Your task to perform on an android device: turn on translation in the chrome app Image 0: 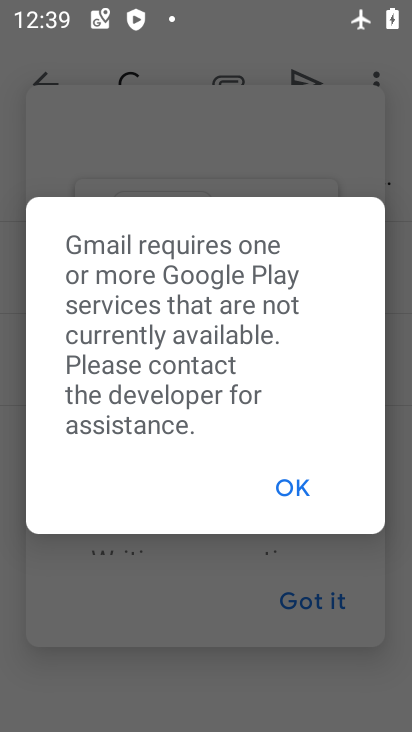
Step 0: press home button
Your task to perform on an android device: turn on translation in the chrome app Image 1: 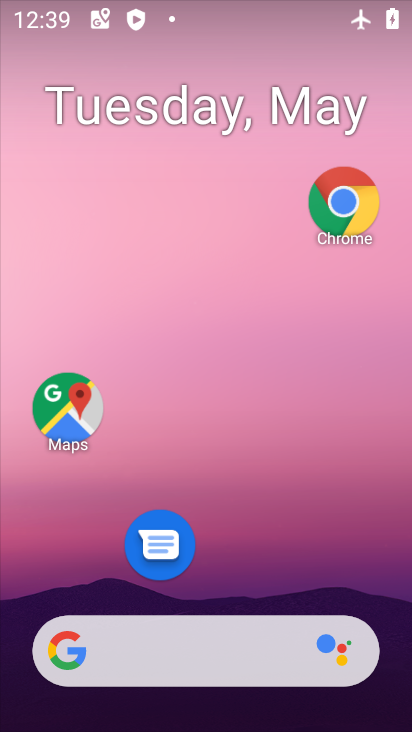
Step 1: click (346, 201)
Your task to perform on an android device: turn on translation in the chrome app Image 2: 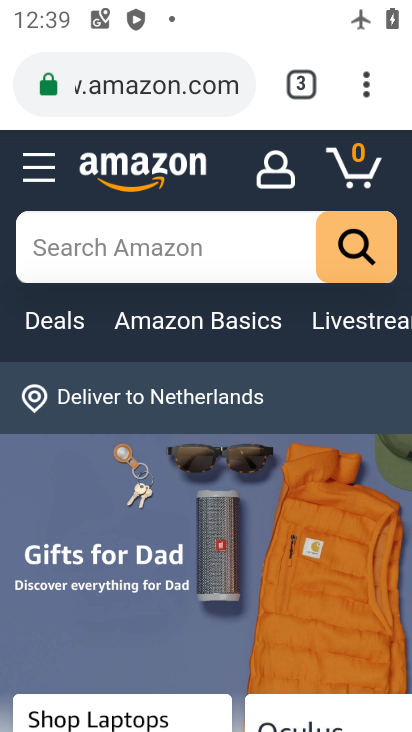
Step 2: click (382, 89)
Your task to perform on an android device: turn on translation in the chrome app Image 3: 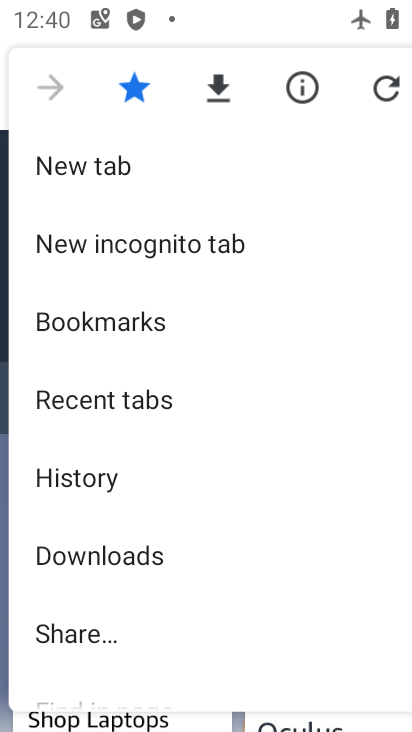
Step 3: drag from (122, 671) to (173, 106)
Your task to perform on an android device: turn on translation in the chrome app Image 4: 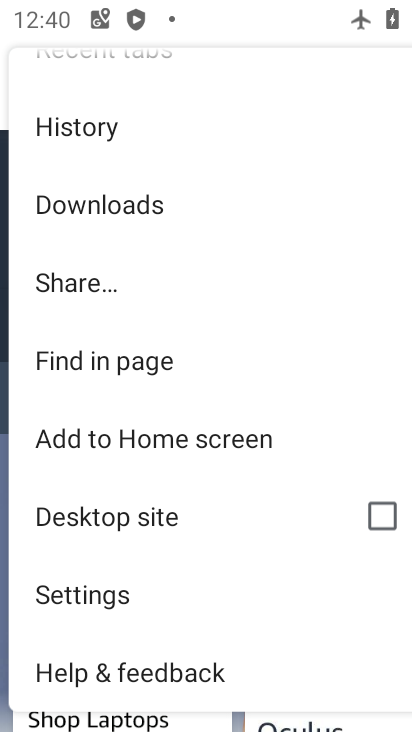
Step 4: click (87, 614)
Your task to perform on an android device: turn on translation in the chrome app Image 5: 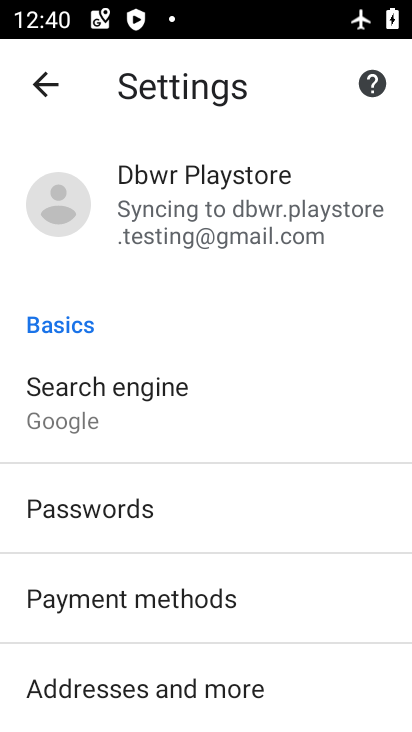
Step 5: drag from (135, 677) to (255, 173)
Your task to perform on an android device: turn on translation in the chrome app Image 6: 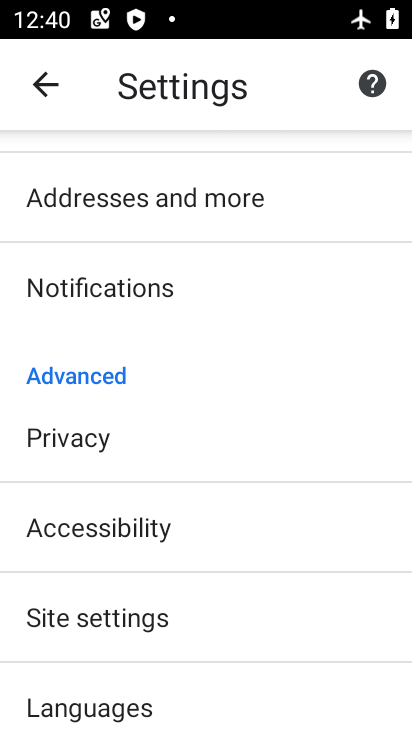
Step 6: click (138, 697)
Your task to perform on an android device: turn on translation in the chrome app Image 7: 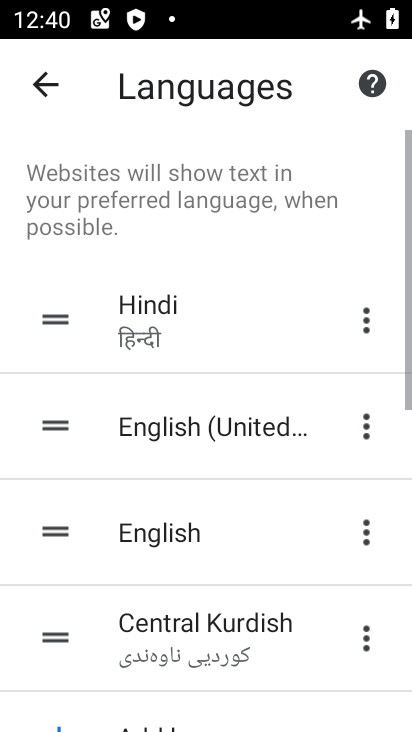
Step 7: task complete